Your task to perform on an android device: open app "Airtel Thanks" (install if not already installed) Image 0: 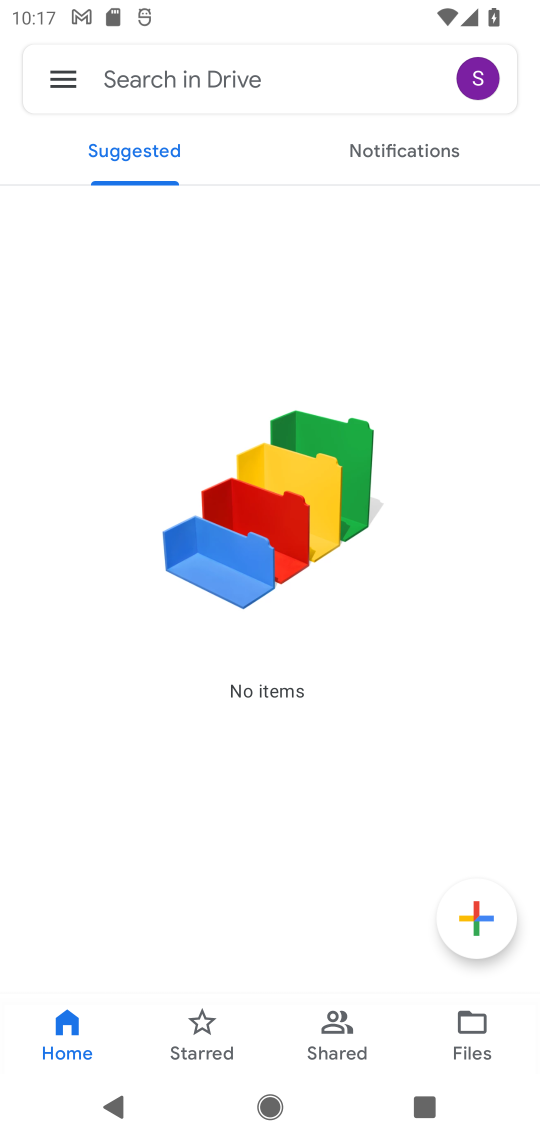
Step 0: press back button
Your task to perform on an android device: open app "Airtel Thanks" (install if not already installed) Image 1: 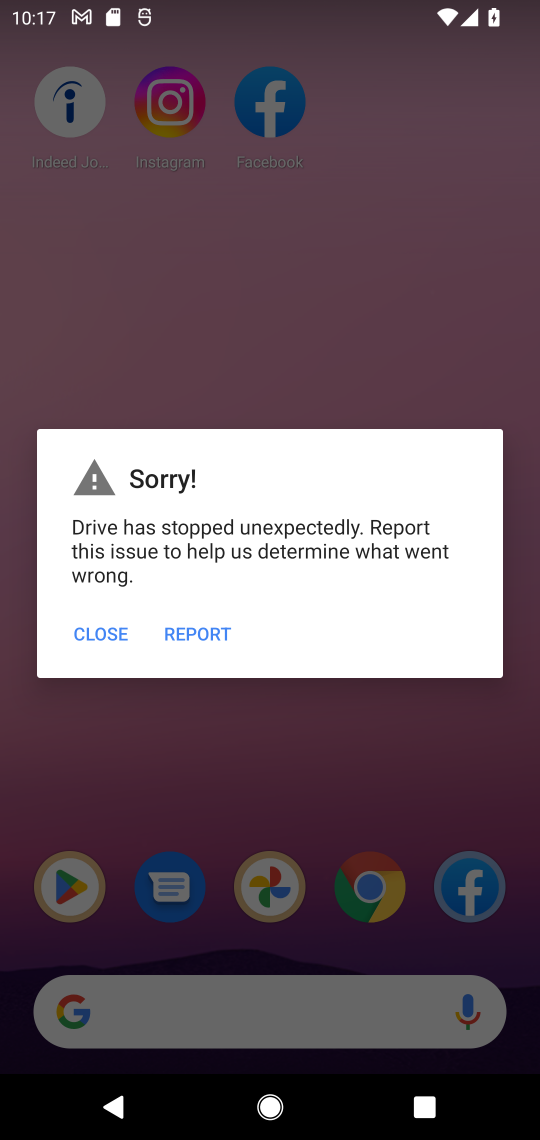
Step 1: click (88, 629)
Your task to perform on an android device: open app "Airtel Thanks" (install if not already installed) Image 2: 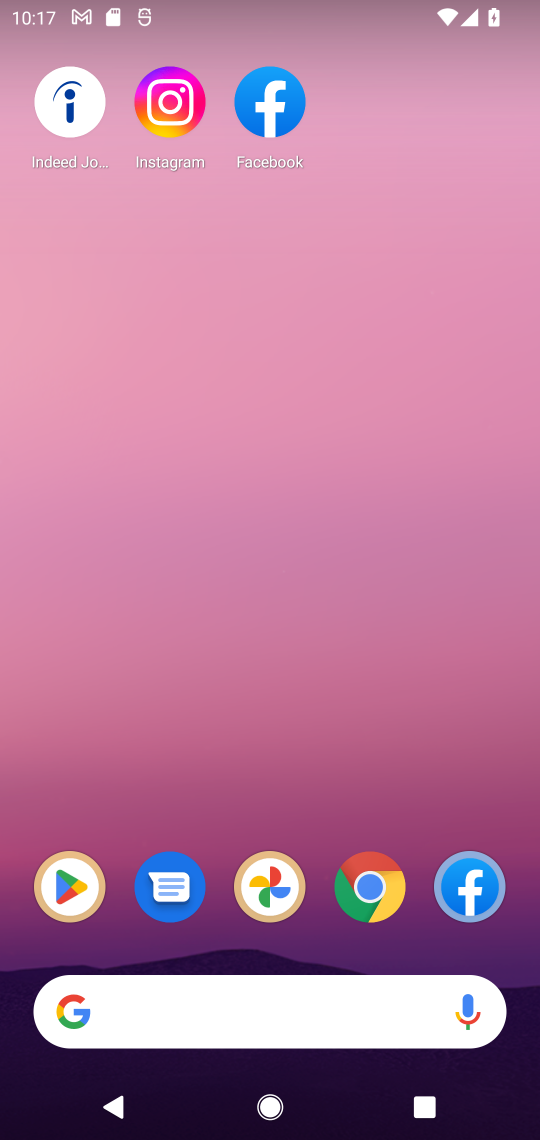
Step 2: drag from (220, 961) to (195, 3)
Your task to perform on an android device: open app "Airtel Thanks" (install if not already installed) Image 3: 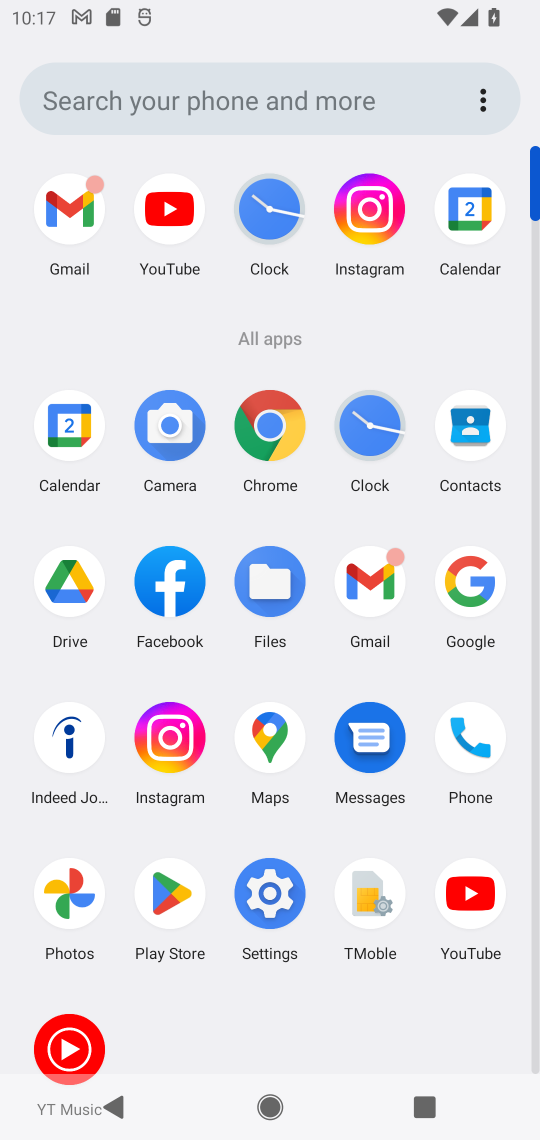
Step 3: click (160, 909)
Your task to perform on an android device: open app "Airtel Thanks" (install if not already installed) Image 4: 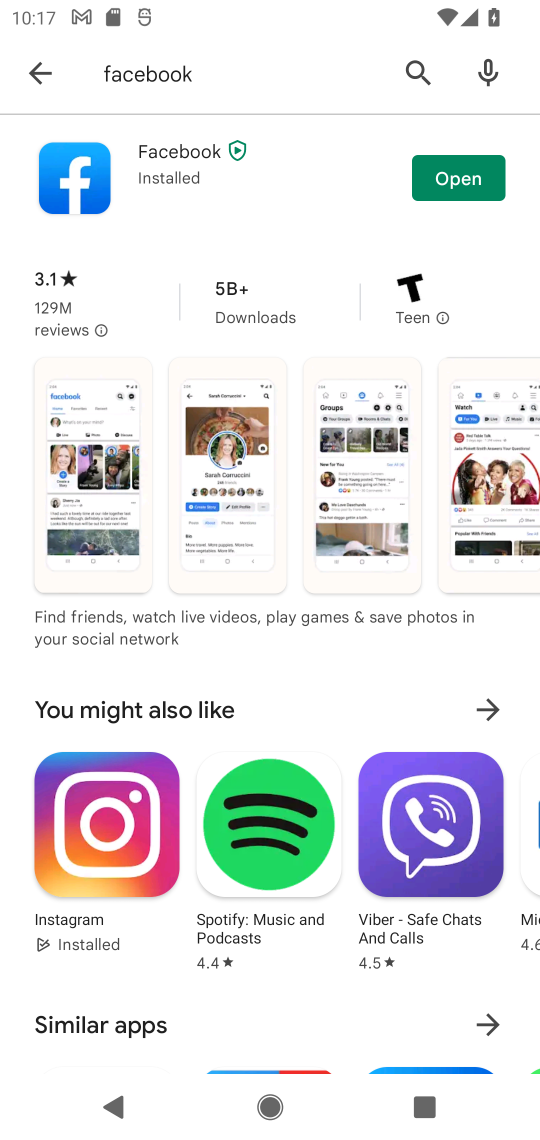
Step 4: click (29, 63)
Your task to perform on an android device: open app "Airtel Thanks" (install if not already installed) Image 5: 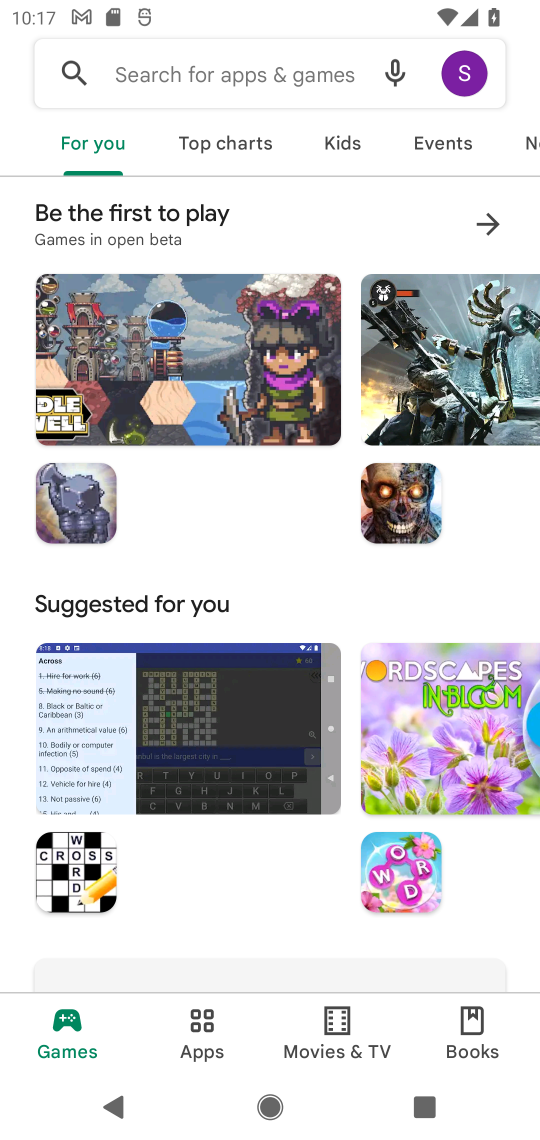
Step 5: click (203, 95)
Your task to perform on an android device: open app "Airtel Thanks" (install if not already installed) Image 6: 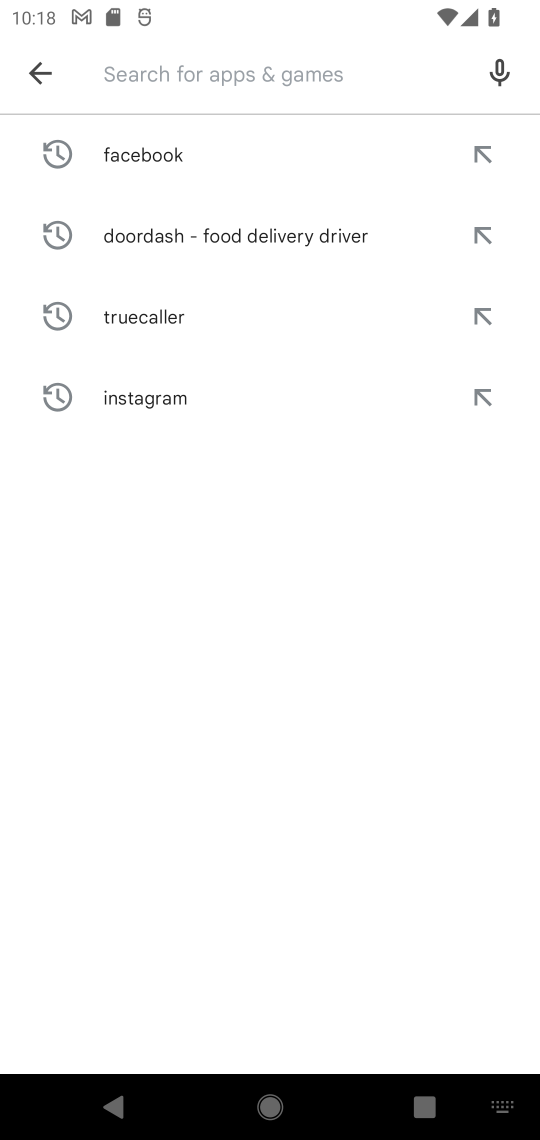
Step 6: type "Airtel Thanks"
Your task to perform on an android device: open app "Airtel Thanks" (install if not already installed) Image 7: 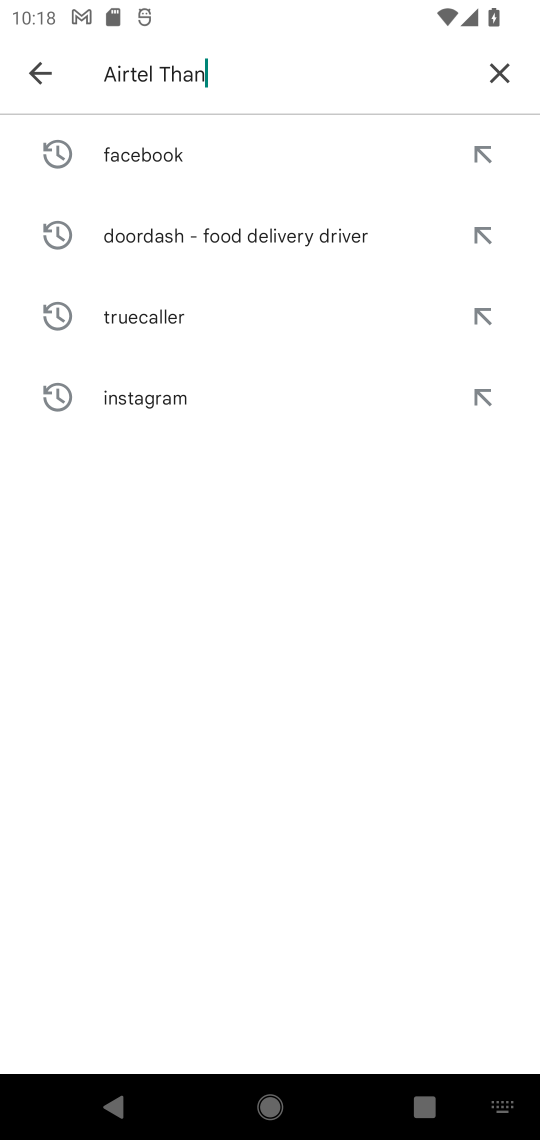
Step 7: type ""
Your task to perform on an android device: open app "Airtel Thanks" (install if not already installed) Image 8: 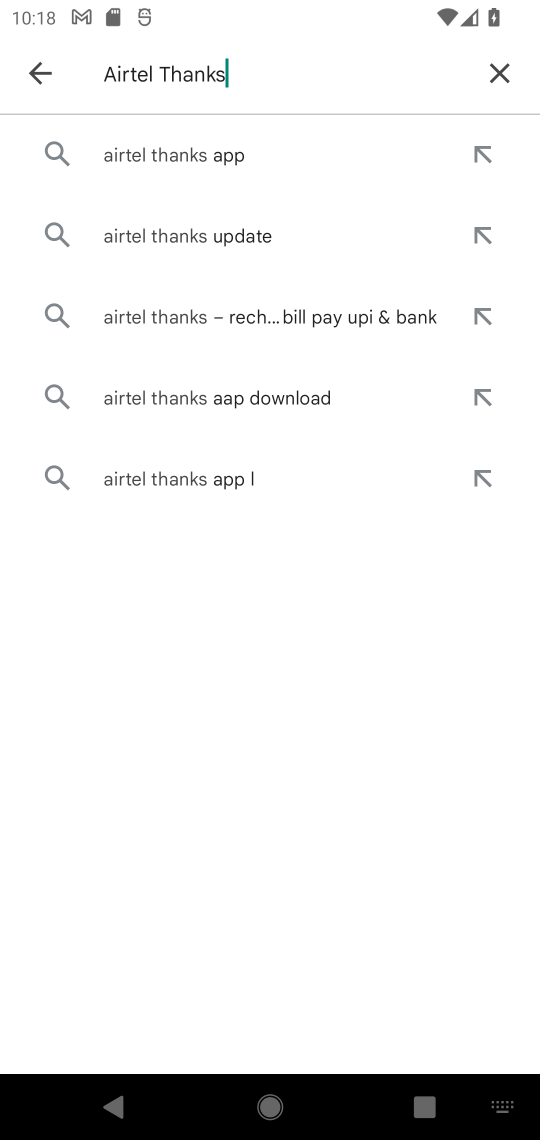
Step 8: click (208, 159)
Your task to perform on an android device: open app "Airtel Thanks" (install if not already installed) Image 9: 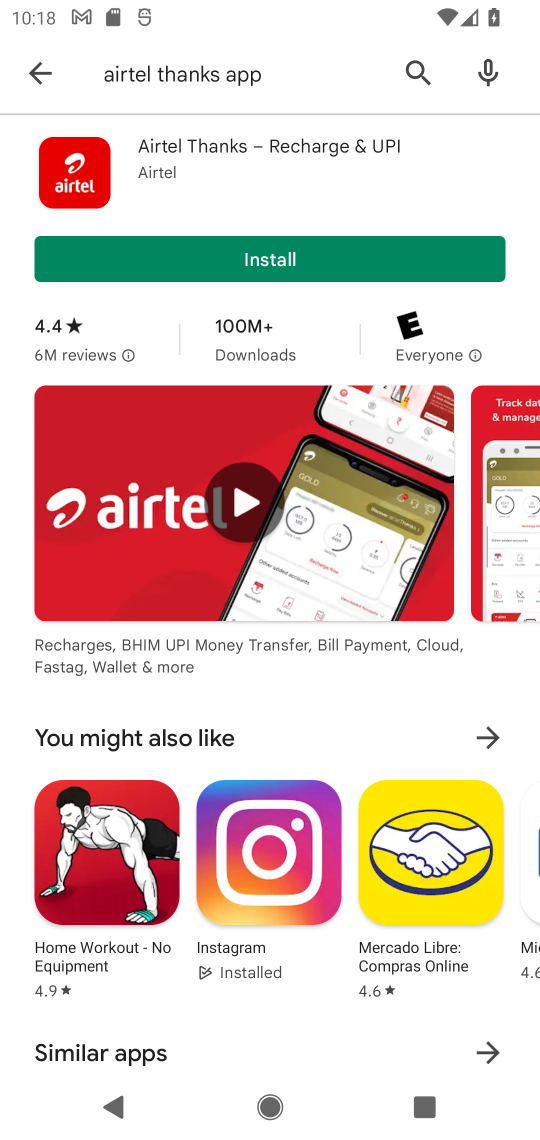
Step 9: click (185, 281)
Your task to perform on an android device: open app "Airtel Thanks" (install if not already installed) Image 10: 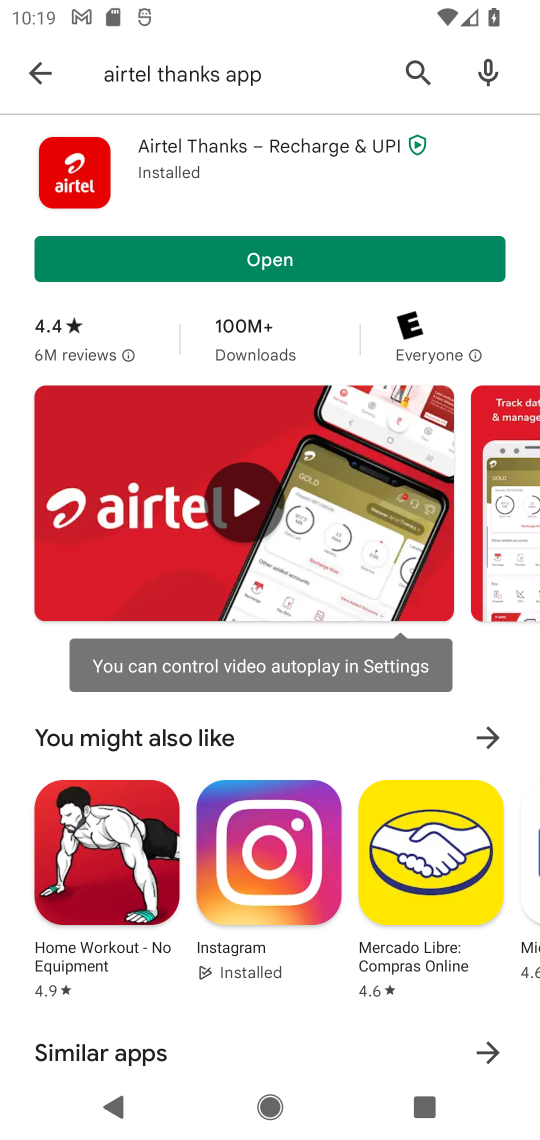
Step 10: click (260, 246)
Your task to perform on an android device: open app "Airtel Thanks" (install if not already installed) Image 11: 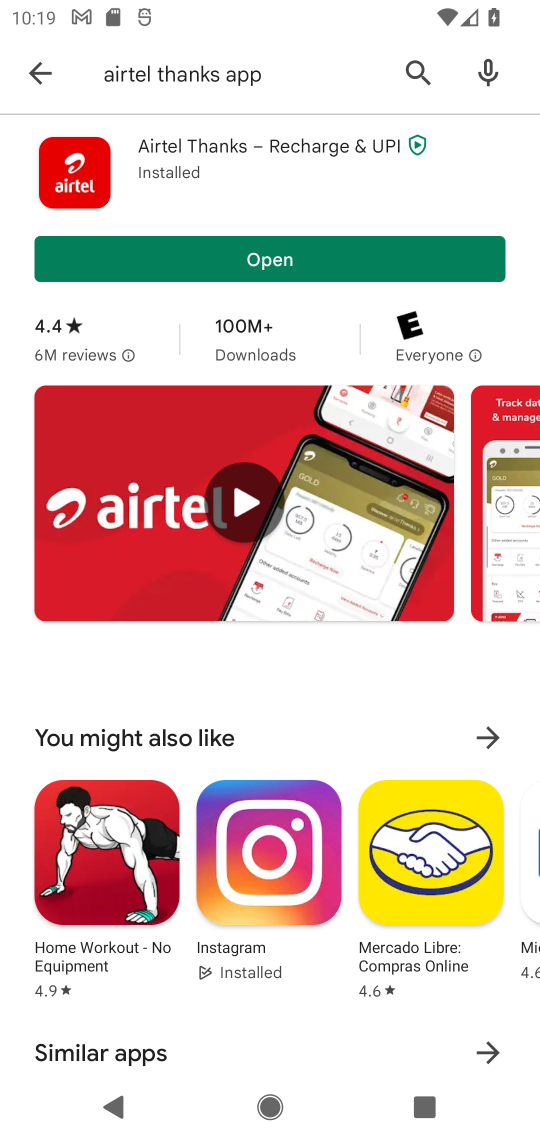
Step 11: task complete